Your task to perform on an android device: refresh tabs in the chrome app Image 0: 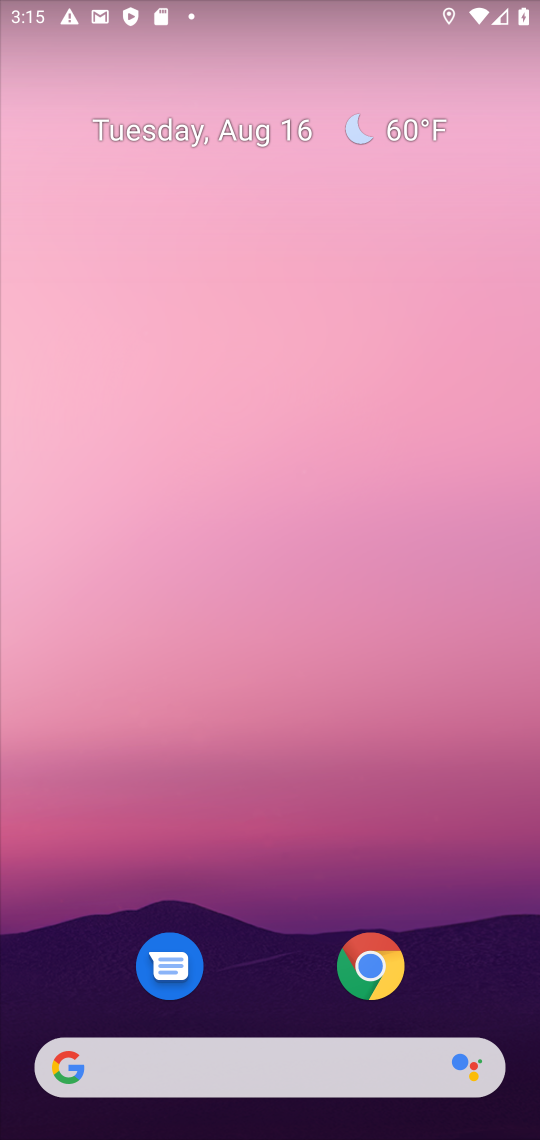
Step 0: click (348, 965)
Your task to perform on an android device: refresh tabs in the chrome app Image 1: 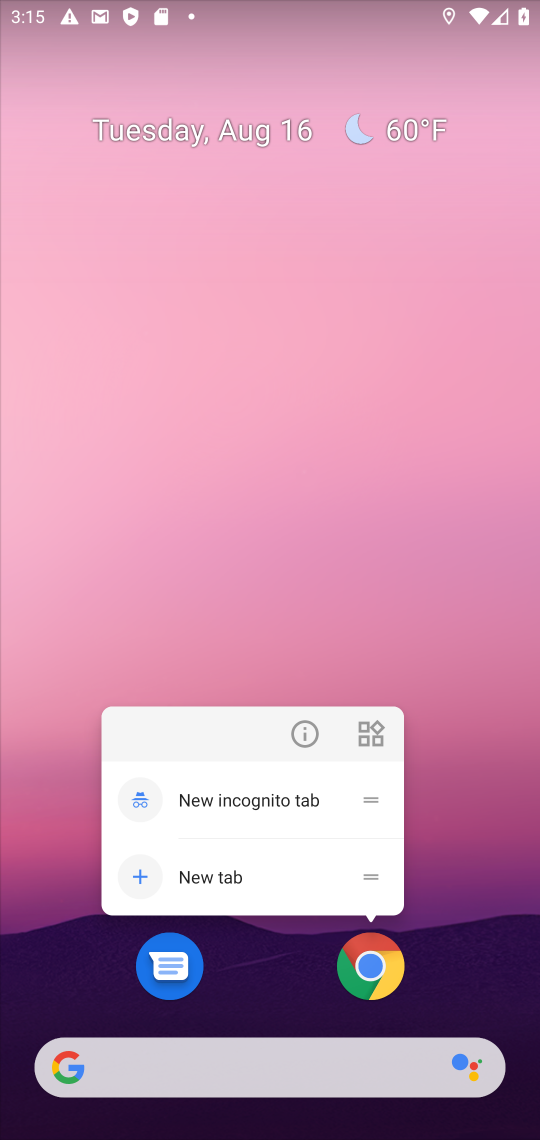
Step 1: click (372, 977)
Your task to perform on an android device: refresh tabs in the chrome app Image 2: 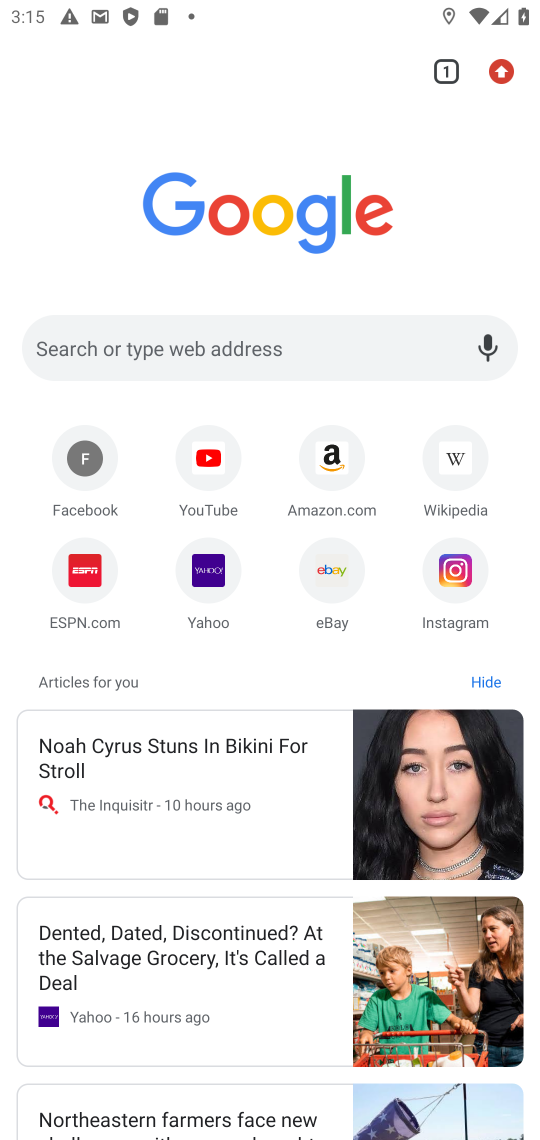
Step 2: click (499, 70)
Your task to perform on an android device: refresh tabs in the chrome app Image 3: 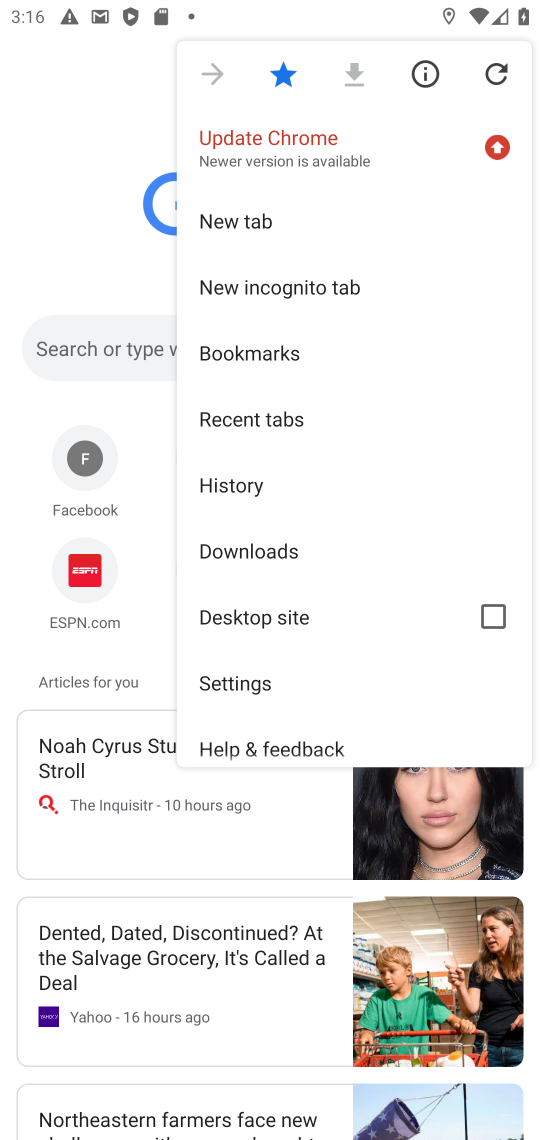
Step 3: click (496, 81)
Your task to perform on an android device: refresh tabs in the chrome app Image 4: 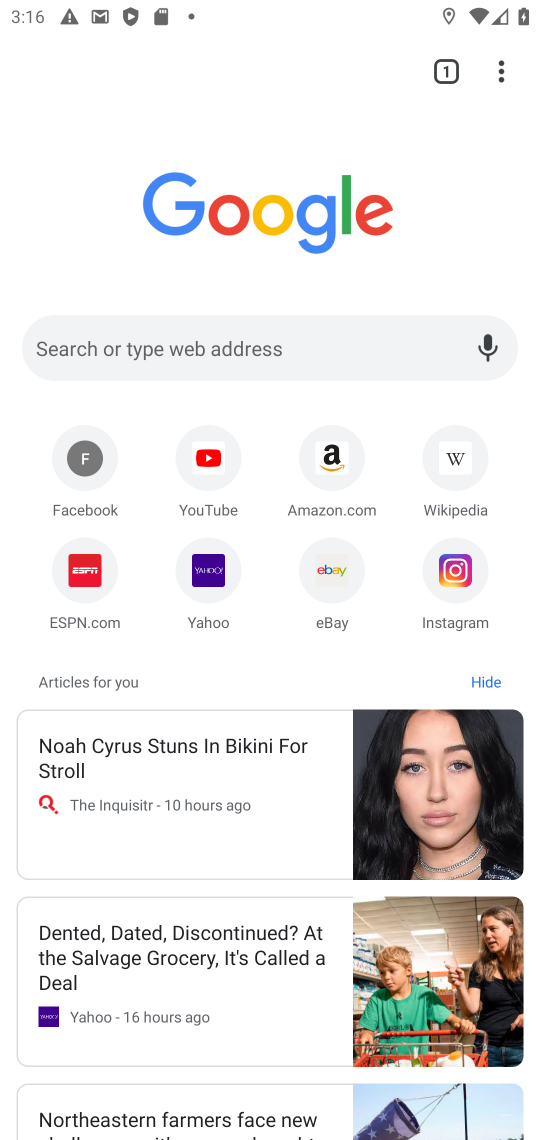
Step 4: task complete